Your task to perform on an android device: open wifi settings Image 0: 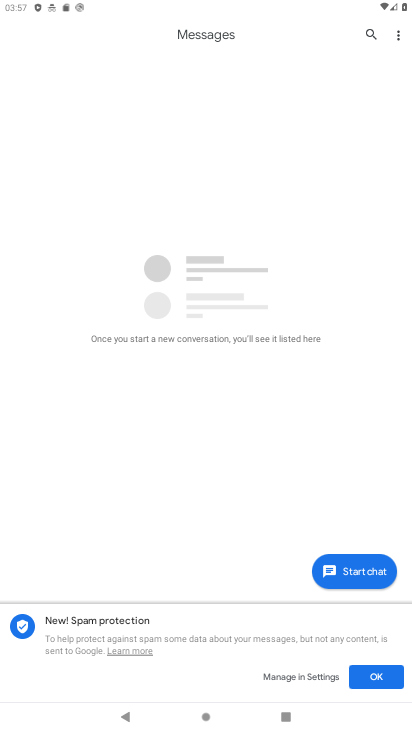
Step 0: press home button
Your task to perform on an android device: open wifi settings Image 1: 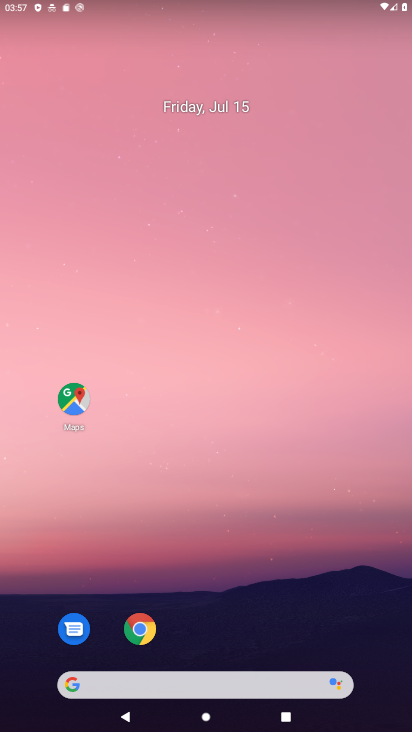
Step 1: drag from (166, 4) to (146, 455)
Your task to perform on an android device: open wifi settings Image 2: 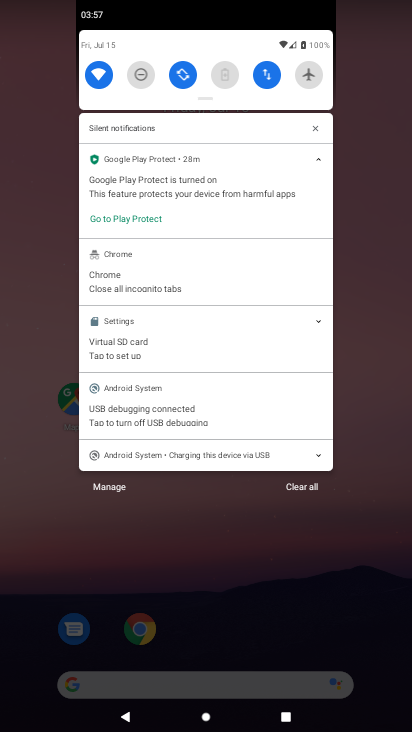
Step 2: click (89, 66)
Your task to perform on an android device: open wifi settings Image 3: 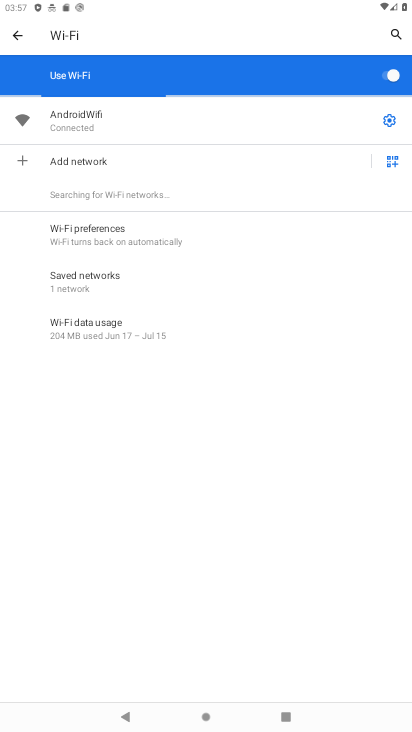
Step 3: task complete